Your task to perform on an android device: move an email to a new category in the gmail app Image 0: 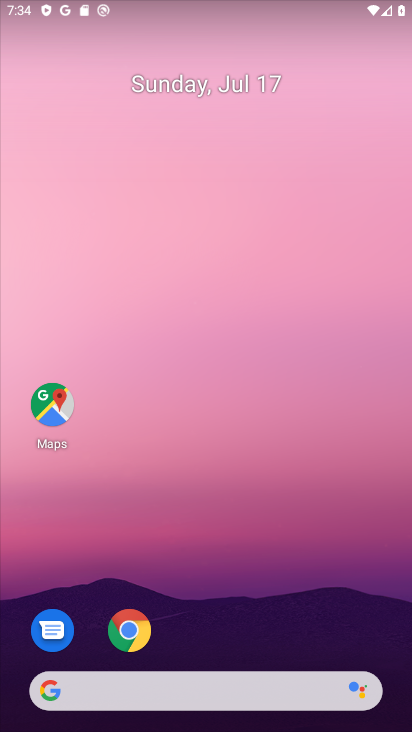
Step 0: drag from (198, 634) to (198, 128)
Your task to perform on an android device: move an email to a new category in the gmail app Image 1: 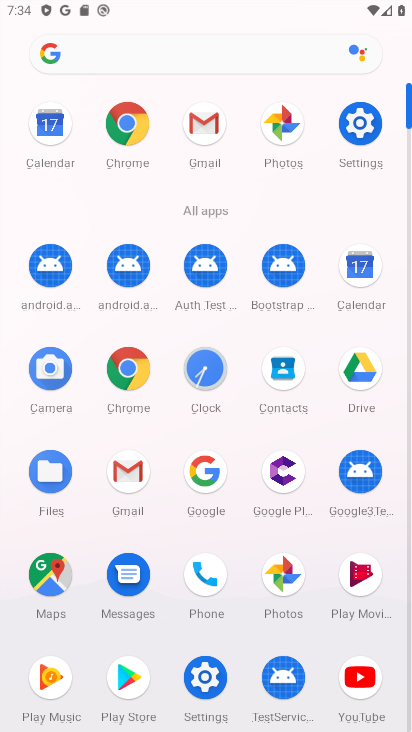
Step 1: click (194, 136)
Your task to perform on an android device: move an email to a new category in the gmail app Image 2: 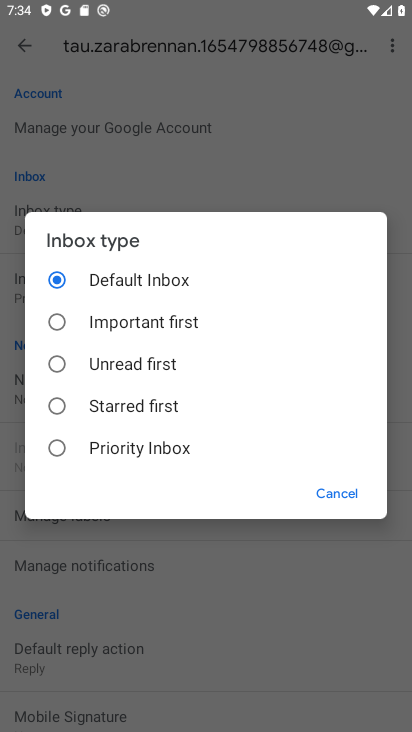
Step 2: click (351, 497)
Your task to perform on an android device: move an email to a new category in the gmail app Image 3: 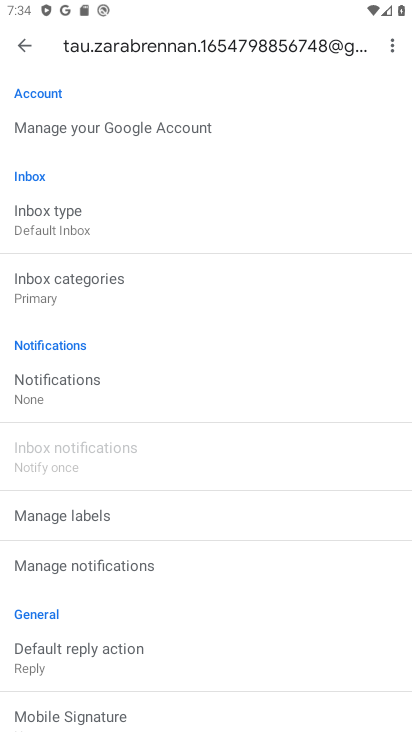
Step 3: click (27, 47)
Your task to perform on an android device: move an email to a new category in the gmail app Image 4: 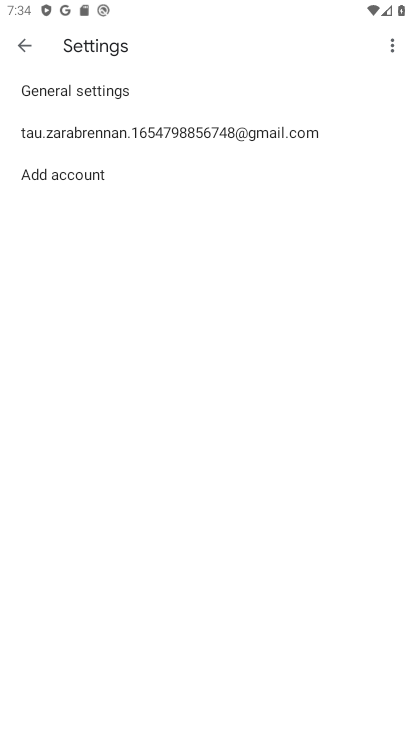
Step 4: click (27, 47)
Your task to perform on an android device: move an email to a new category in the gmail app Image 5: 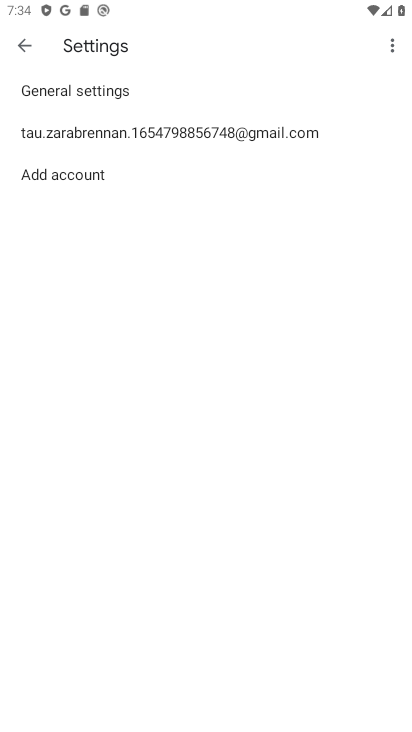
Step 5: click (27, 47)
Your task to perform on an android device: move an email to a new category in the gmail app Image 6: 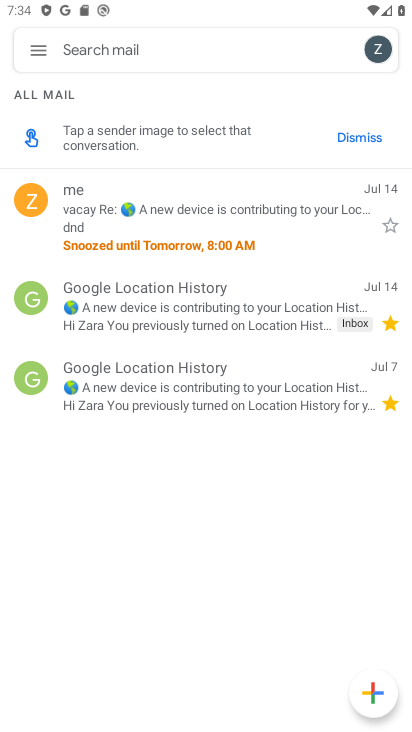
Step 6: click (198, 304)
Your task to perform on an android device: move an email to a new category in the gmail app Image 7: 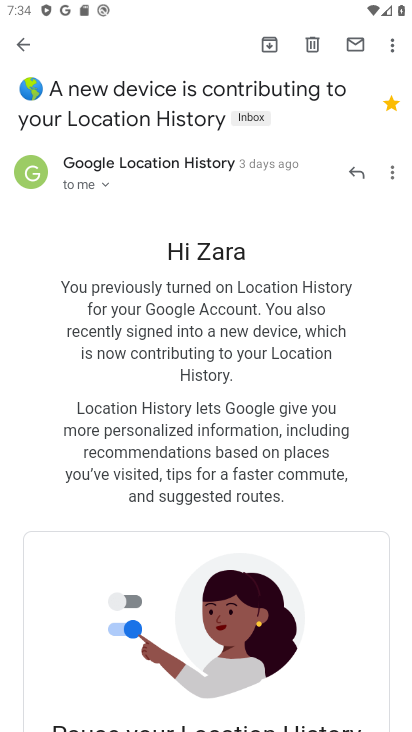
Step 7: click (393, 171)
Your task to perform on an android device: move an email to a new category in the gmail app Image 8: 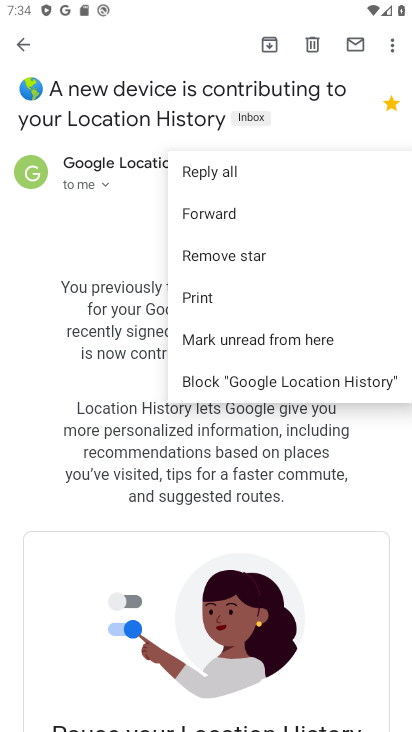
Step 8: click (393, 46)
Your task to perform on an android device: move an email to a new category in the gmail app Image 9: 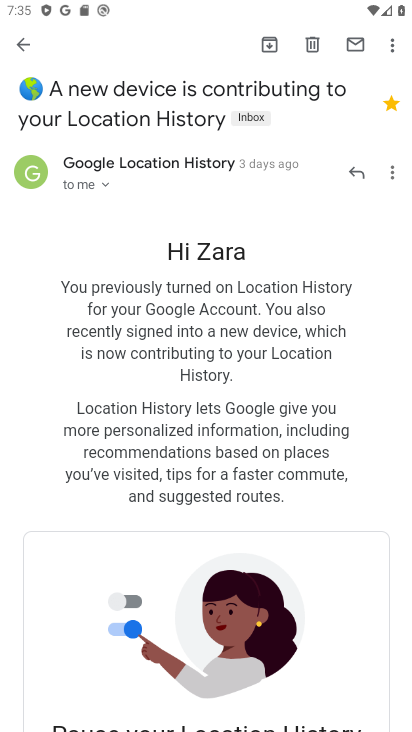
Step 9: click (393, 46)
Your task to perform on an android device: move an email to a new category in the gmail app Image 10: 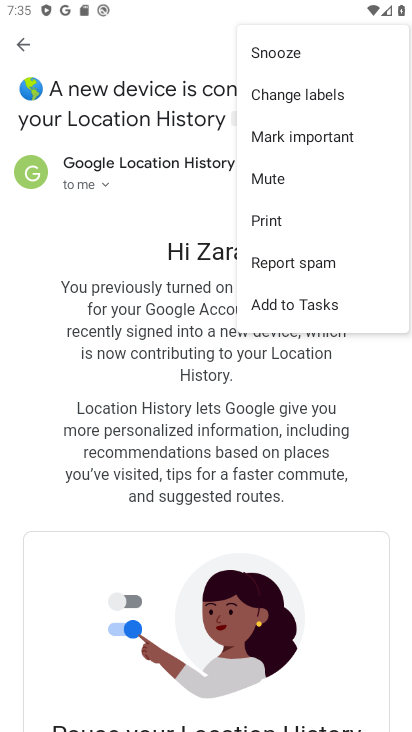
Step 10: click (336, 98)
Your task to perform on an android device: move an email to a new category in the gmail app Image 11: 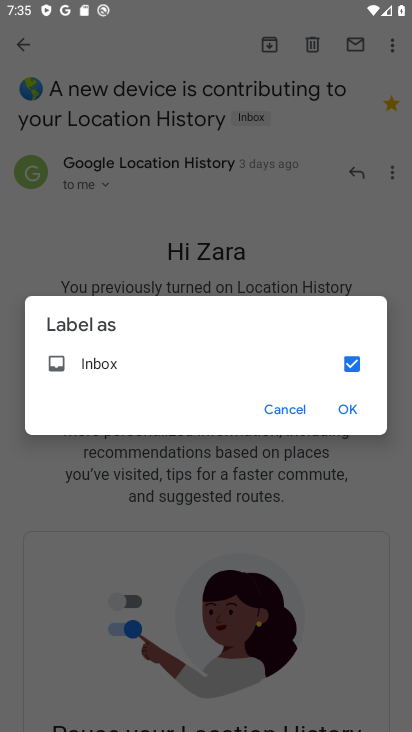
Step 11: click (343, 361)
Your task to perform on an android device: move an email to a new category in the gmail app Image 12: 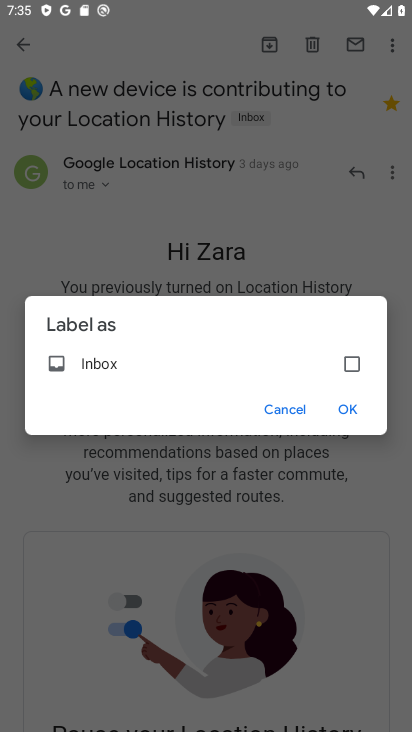
Step 12: click (343, 403)
Your task to perform on an android device: move an email to a new category in the gmail app Image 13: 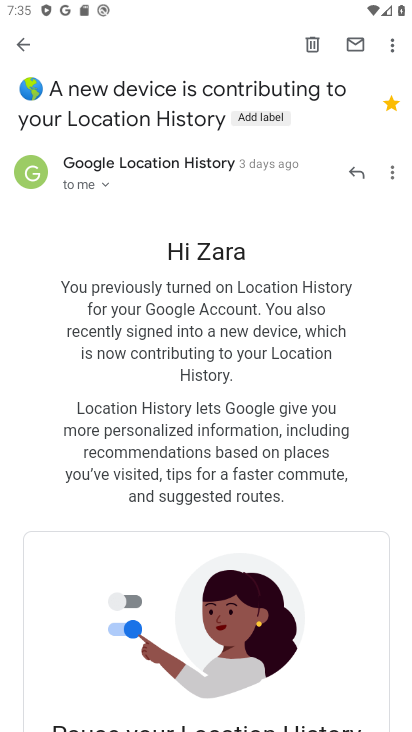
Step 13: task complete